Your task to perform on an android device: Open battery settings Image 0: 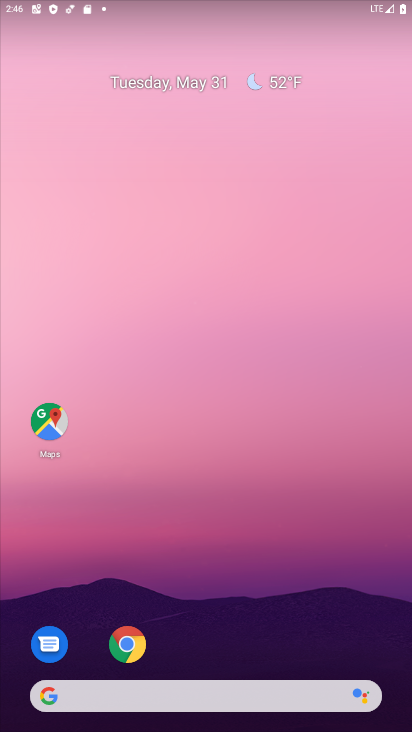
Step 0: drag from (290, 647) to (268, 228)
Your task to perform on an android device: Open battery settings Image 1: 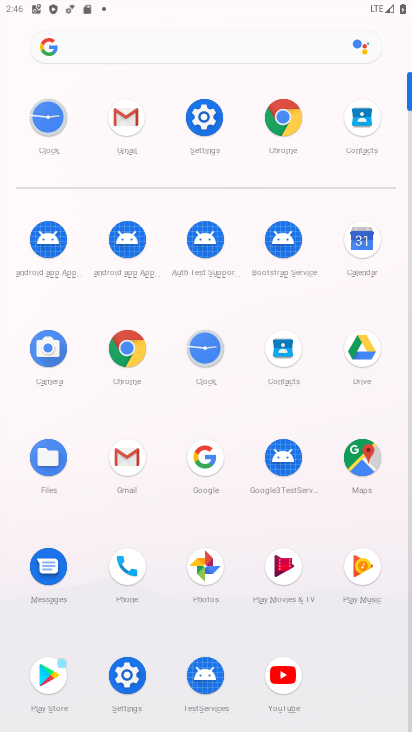
Step 1: click (201, 117)
Your task to perform on an android device: Open battery settings Image 2: 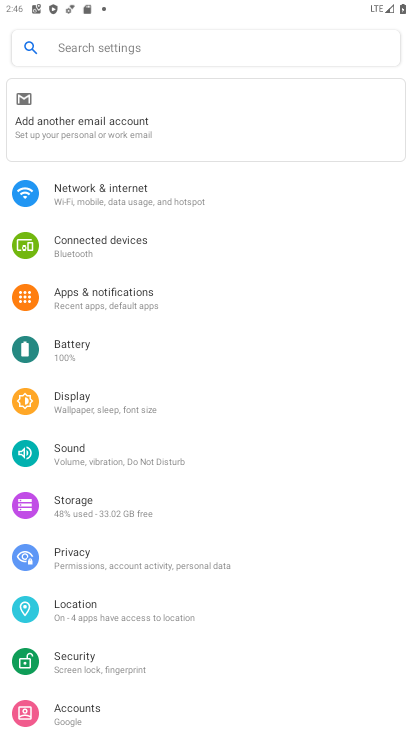
Step 2: click (106, 351)
Your task to perform on an android device: Open battery settings Image 3: 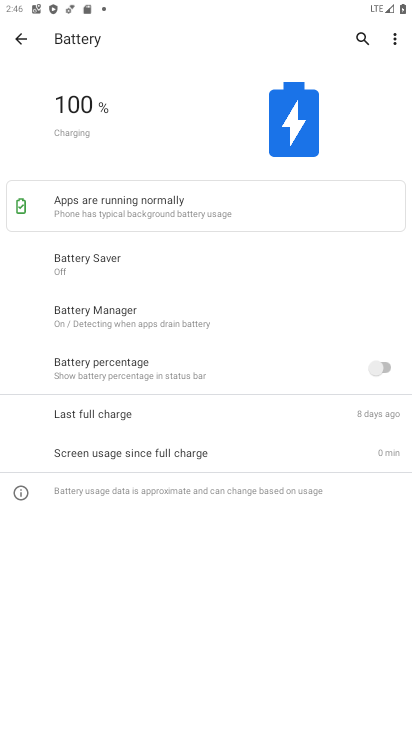
Step 3: task complete